Your task to perform on an android device: find snoozed emails in the gmail app Image 0: 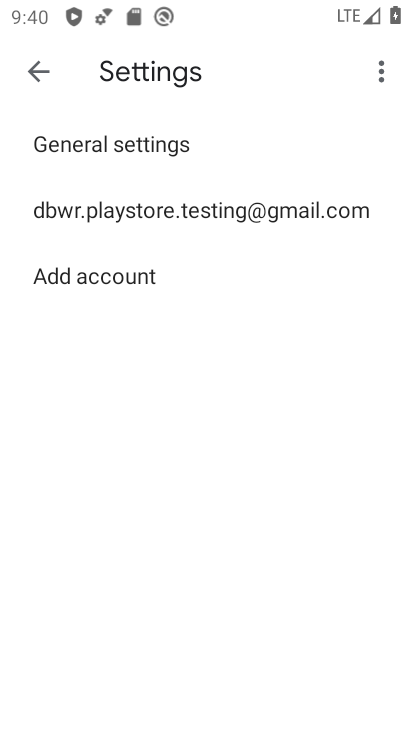
Step 0: click (59, 86)
Your task to perform on an android device: find snoozed emails in the gmail app Image 1: 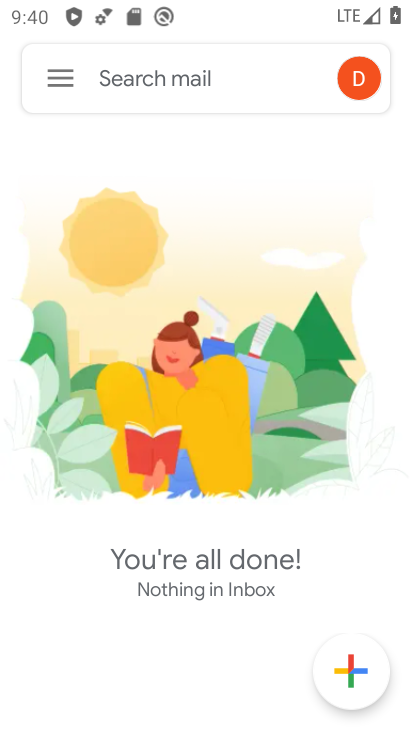
Step 1: click (60, 90)
Your task to perform on an android device: find snoozed emails in the gmail app Image 2: 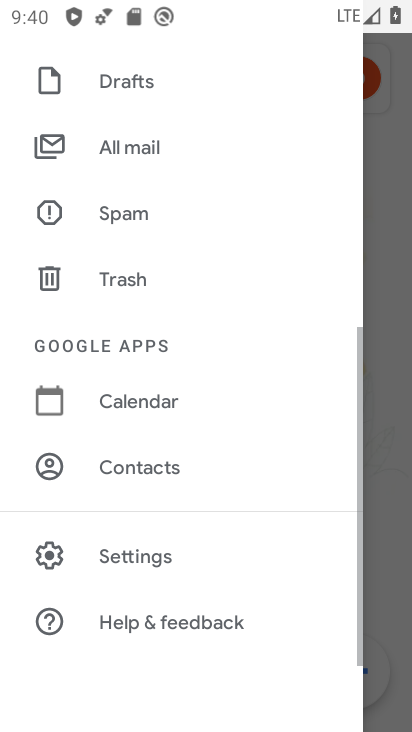
Step 2: drag from (146, 203) to (131, 651)
Your task to perform on an android device: find snoozed emails in the gmail app Image 3: 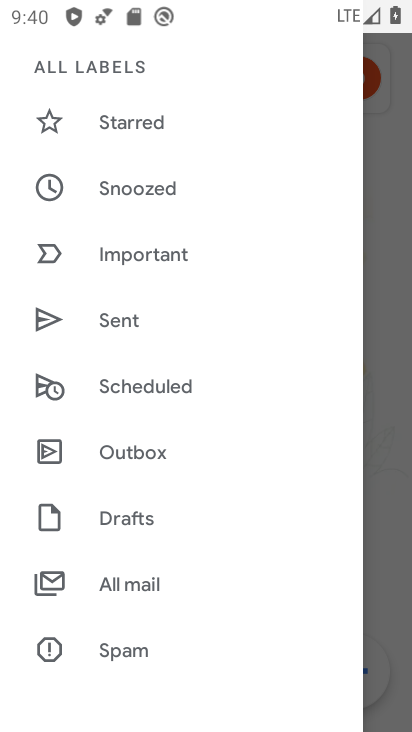
Step 3: click (146, 211)
Your task to perform on an android device: find snoozed emails in the gmail app Image 4: 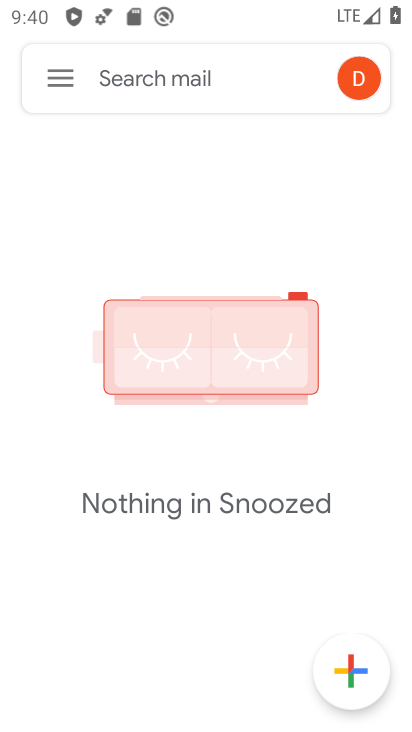
Step 4: click (61, 82)
Your task to perform on an android device: find snoozed emails in the gmail app Image 5: 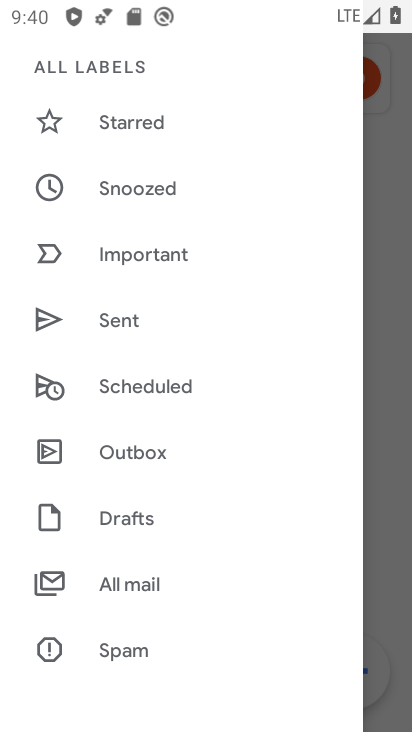
Step 5: click (140, 190)
Your task to perform on an android device: find snoozed emails in the gmail app Image 6: 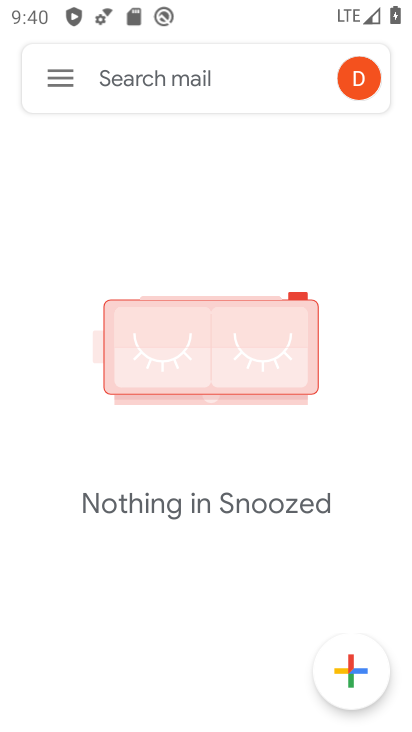
Step 6: task complete